Your task to perform on an android device: all mails in gmail Image 0: 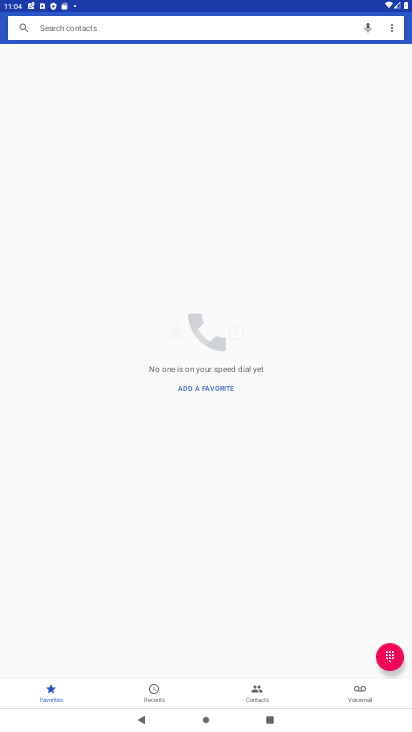
Step 0: press home button
Your task to perform on an android device: all mails in gmail Image 1: 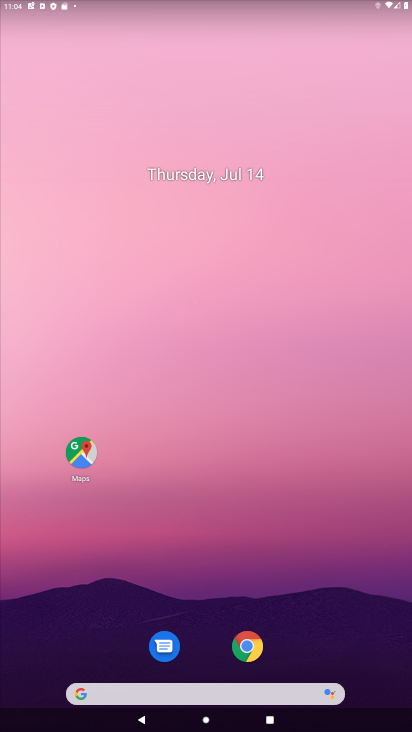
Step 1: drag from (200, 658) to (175, 250)
Your task to perform on an android device: all mails in gmail Image 2: 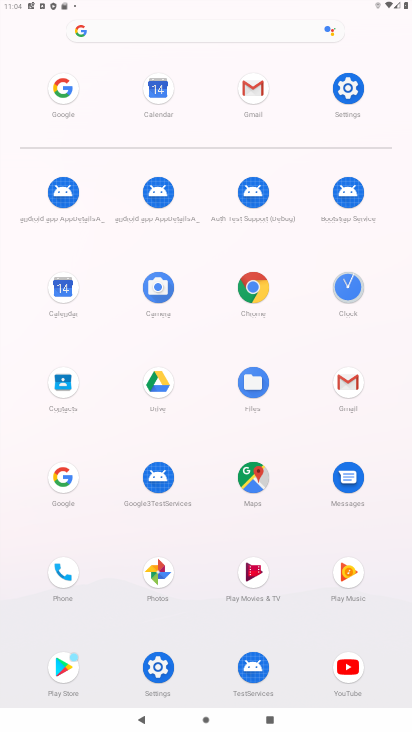
Step 2: click (224, 91)
Your task to perform on an android device: all mails in gmail Image 3: 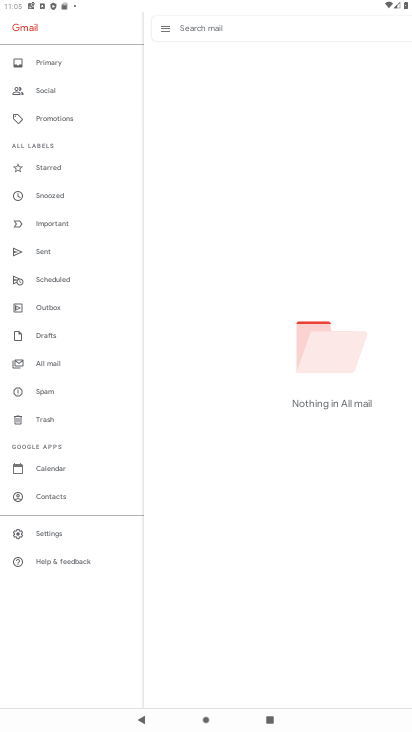
Step 3: click (51, 369)
Your task to perform on an android device: all mails in gmail Image 4: 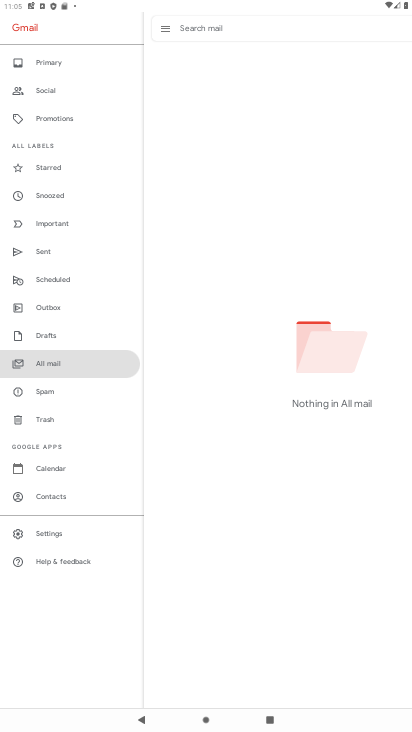
Step 4: task complete